Your task to perform on an android device: Go to CNN.com Image 0: 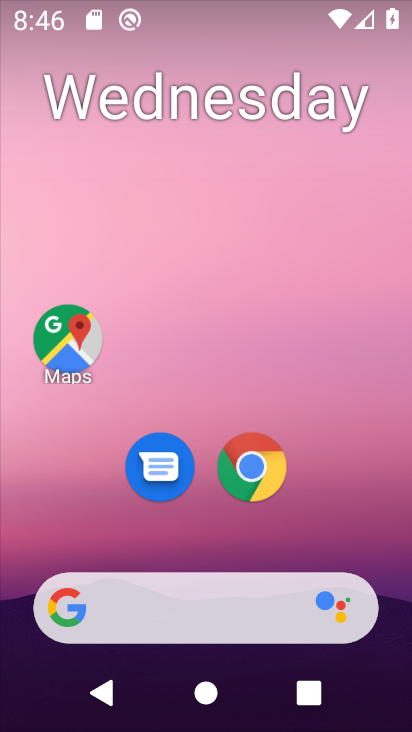
Step 0: drag from (372, 479) to (404, 50)
Your task to perform on an android device: Go to CNN.com Image 1: 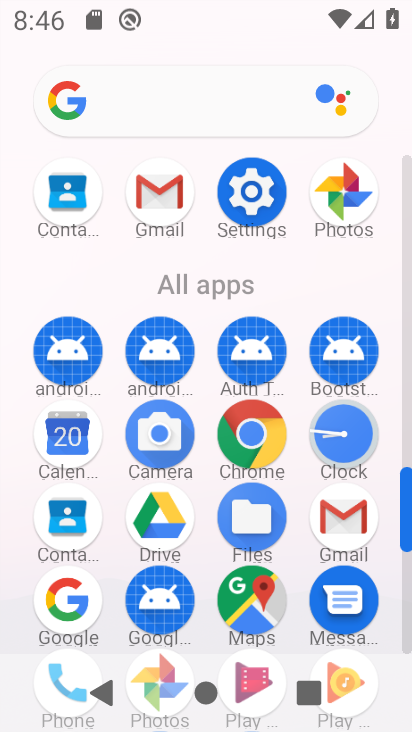
Step 1: click (265, 452)
Your task to perform on an android device: Go to CNN.com Image 2: 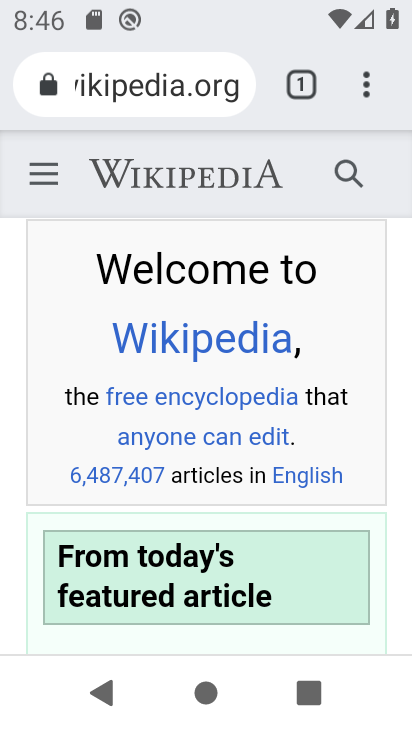
Step 2: click (159, 90)
Your task to perform on an android device: Go to CNN.com Image 3: 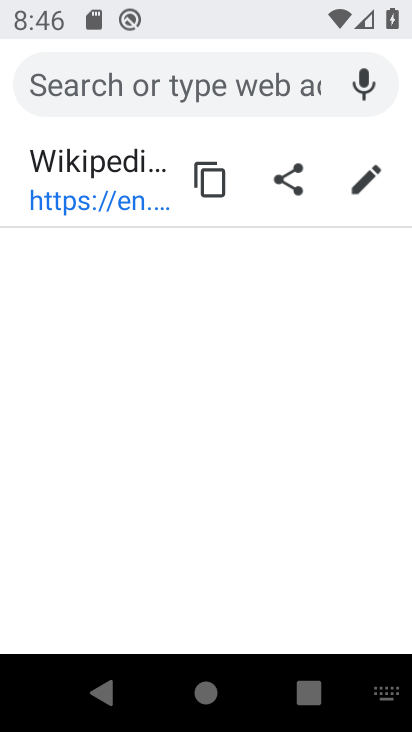
Step 3: type "cnn.com"
Your task to perform on an android device: Go to CNN.com Image 4: 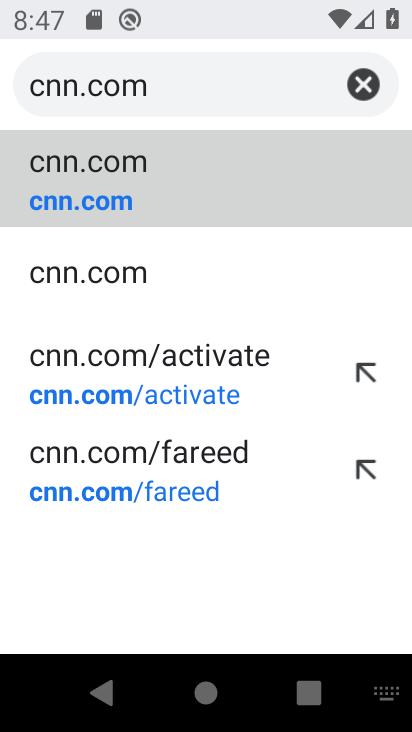
Step 4: click (76, 181)
Your task to perform on an android device: Go to CNN.com Image 5: 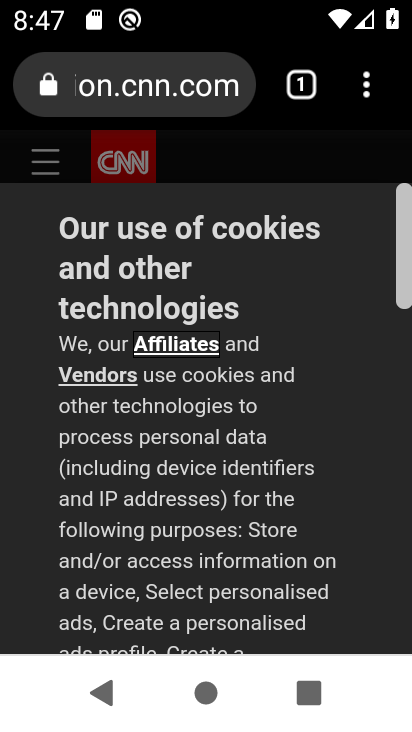
Step 5: task complete